Your task to perform on an android device: open app "Lyft - Rideshare, Bikes, Scooters & Transit" (install if not already installed) Image 0: 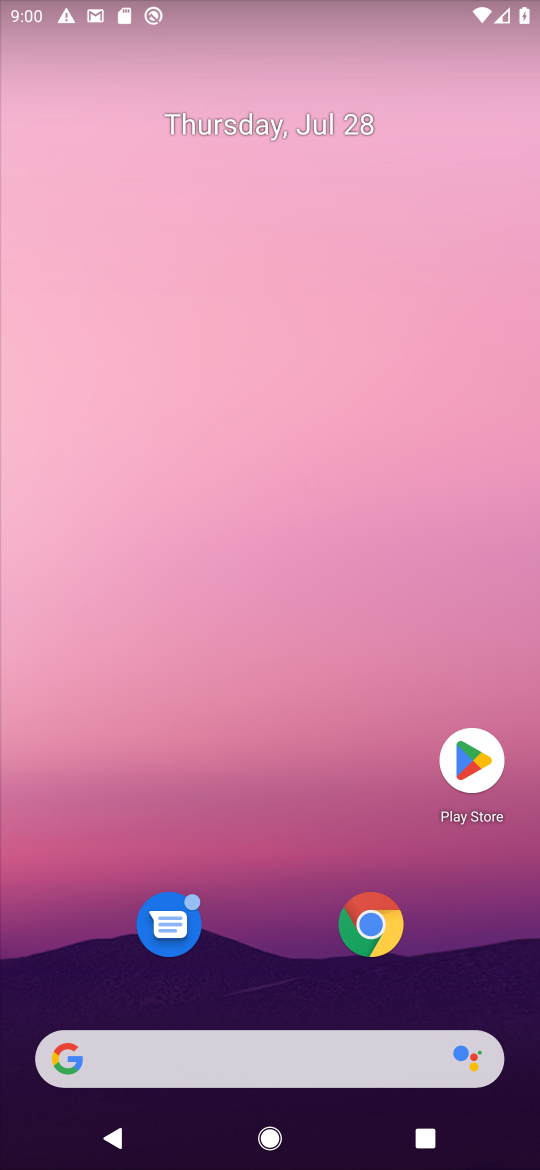
Step 0: press home button
Your task to perform on an android device: open app "Lyft - Rideshare, Bikes, Scooters & Transit" (install if not already installed) Image 1: 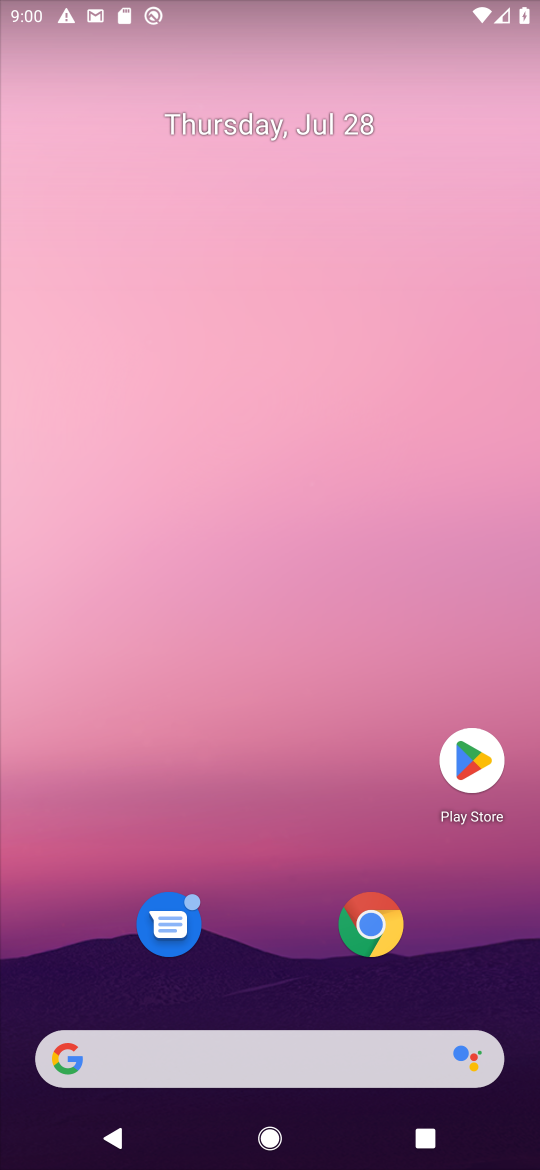
Step 1: click (475, 761)
Your task to perform on an android device: open app "Lyft - Rideshare, Bikes, Scooters & Transit" (install if not already installed) Image 2: 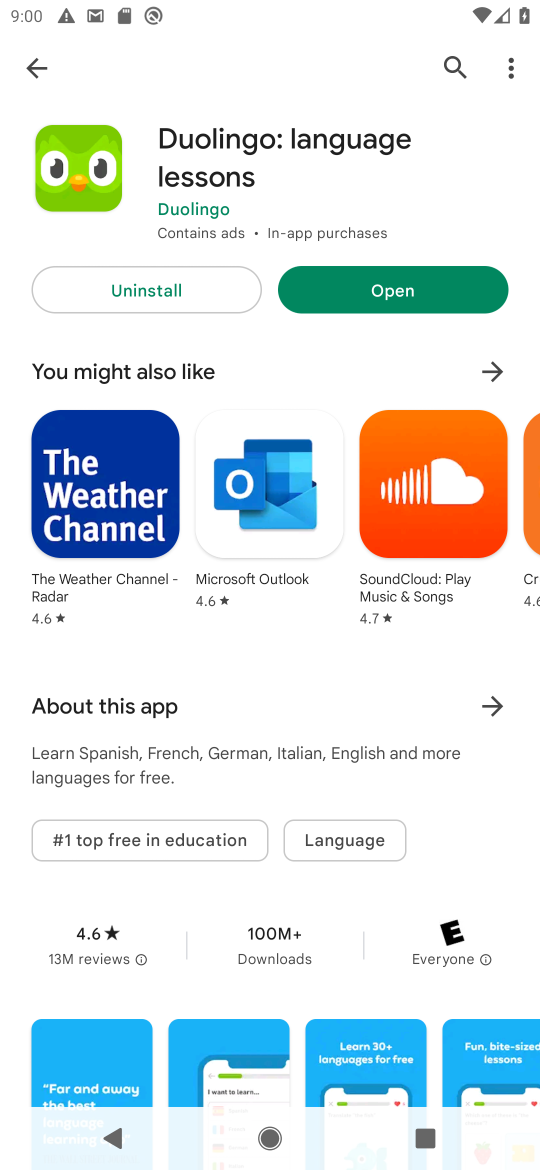
Step 2: click (451, 62)
Your task to perform on an android device: open app "Lyft - Rideshare, Bikes, Scooters & Transit" (install if not already installed) Image 3: 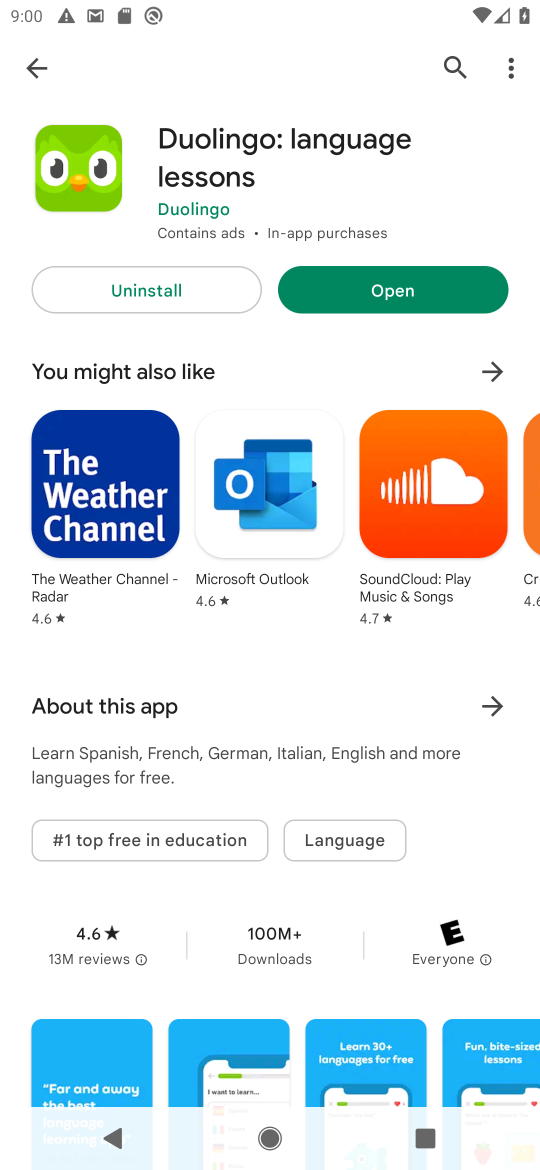
Step 3: click (437, 67)
Your task to perform on an android device: open app "Lyft - Rideshare, Bikes, Scooters & Transit" (install if not already installed) Image 4: 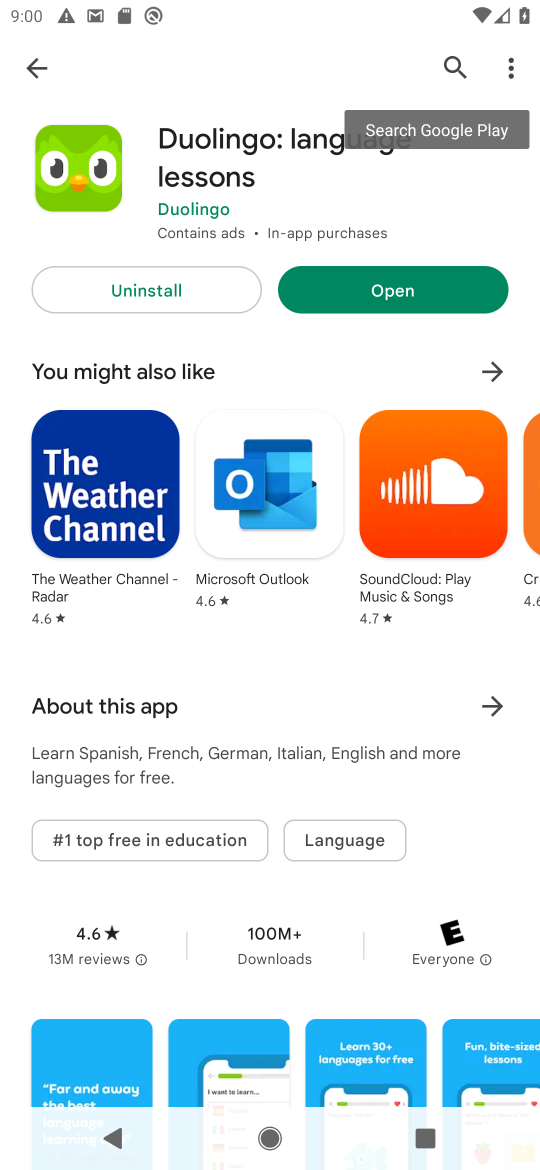
Step 4: click (39, 64)
Your task to perform on an android device: open app "Lyft - Rideshare, Bikes, Scooters & Transit" (install if not already installed) Image 5: 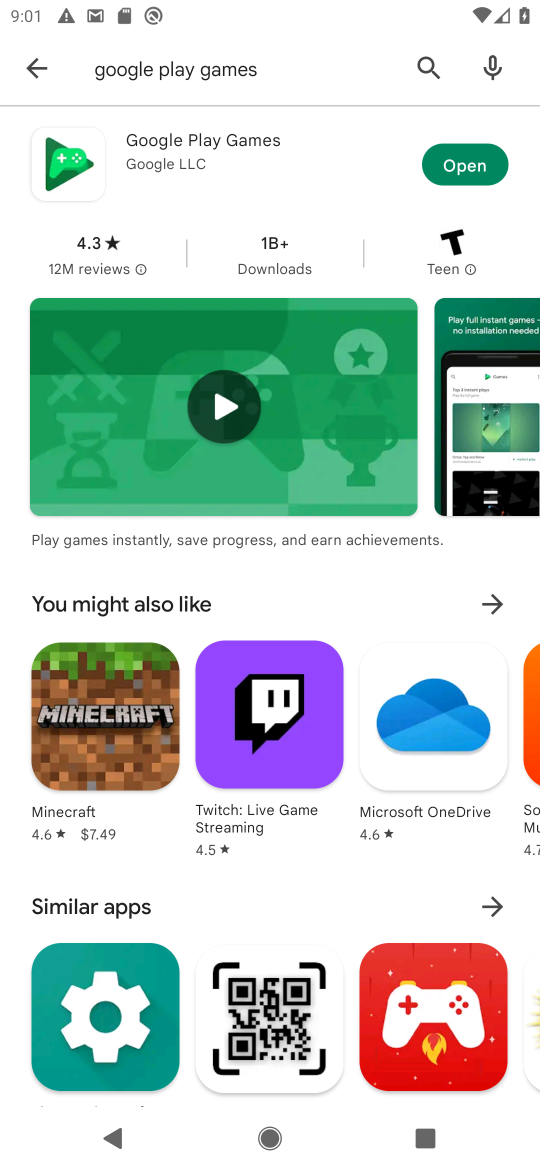
Step 5: click (422, 65)
Your task to perform on an android device: open app "Lyft - Rideshare, Bikes, Scooters & Transit" (install if not already installed) Image 6: 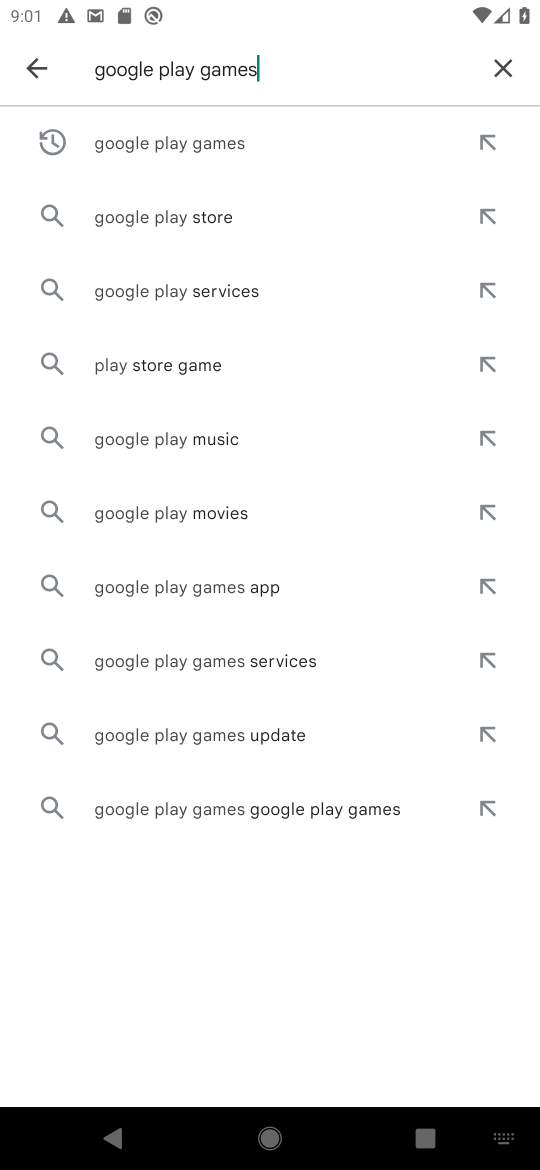
Step 6: click (497, 53)
Your task to perform on an android device: open app "Lyft - Rideshare, Bikes, Scooters & Transit" (install if not already installed) Image 7: 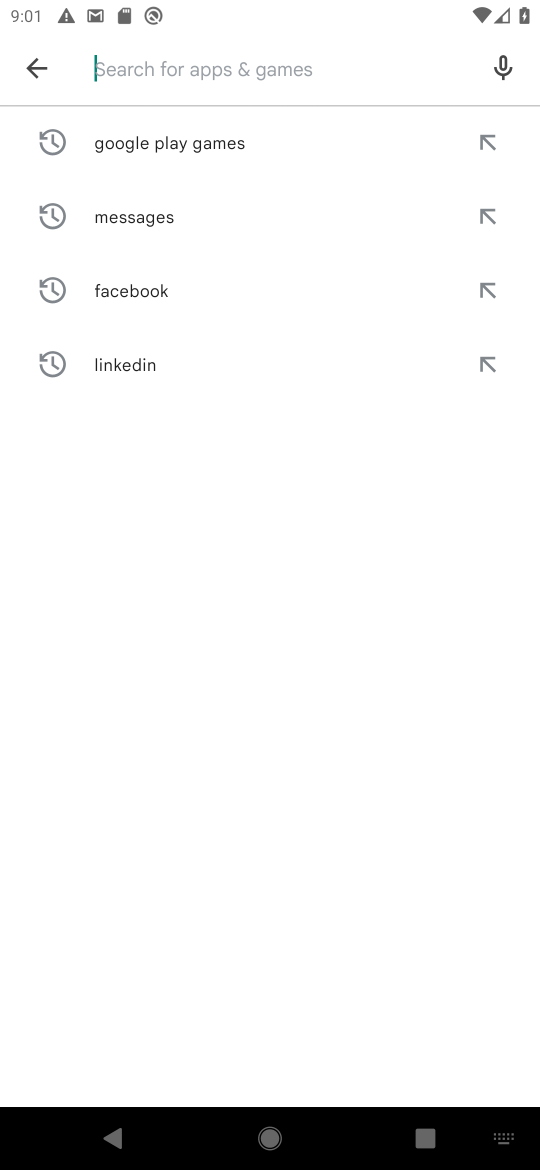
Step 7: type "Lyft - Rideshare, Bikes, Scooters & Transit"
Your task to perform on an android device: open app "Lyft - Rideshare, Bikes, Scooters & Transit" (install if not already installed) Image 8: 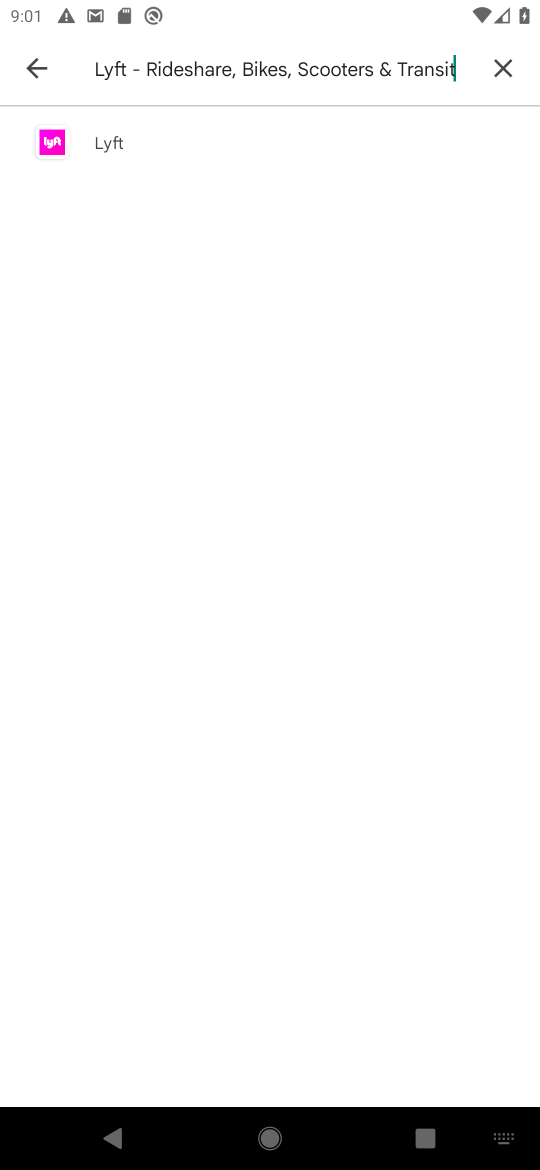
Step 8: click (104, 141)
Your task to perform on an android device: open app "Lyft - Rideshare, Bikes, Scooters & Transit" (install if not already installed) Image 9: 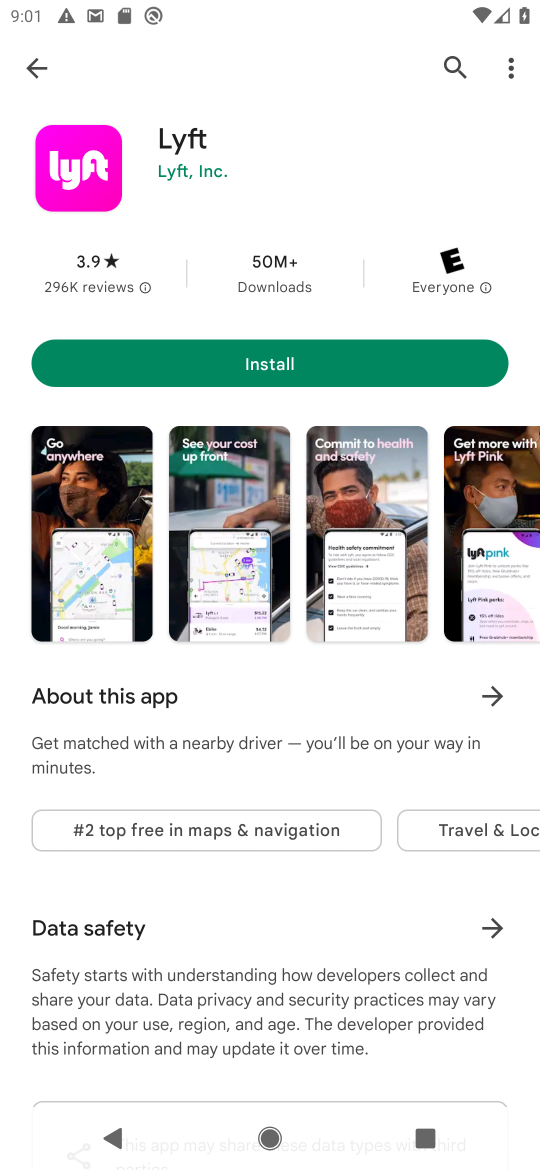
Step 9: click (283, 354)
Your task to perform on an android device: open app "Lyft - Rideshare, Bikes, Scooters & Transit" (install if not already installed) Image 10: 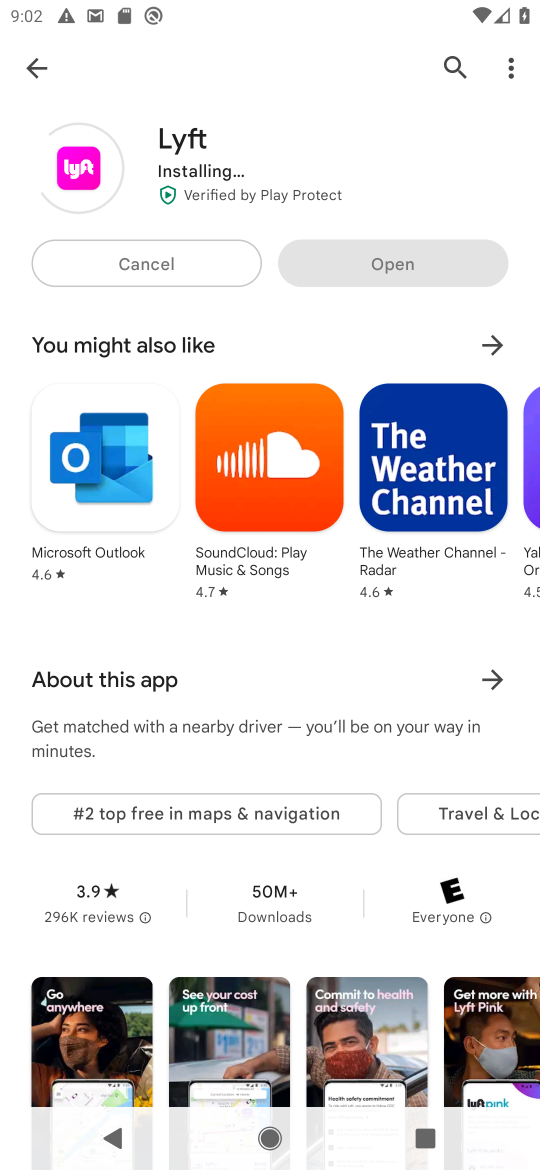
Step 10: click (442, 270)
Your task to perform on an android device: open app "Lyft - Rideshare, Bikes, Scooters & Transit" (install if not already installed) Image 11: 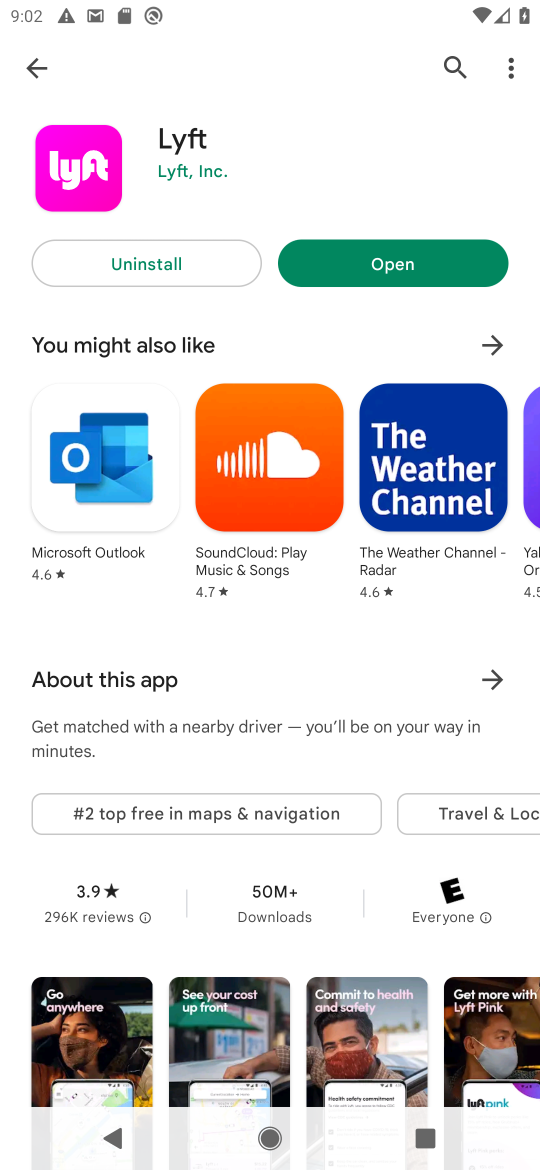
Step 11: click (363, 258)
Your task to perform on an android device: open app "Lyft - Rideshare, Bikes, Scooters & Transit" (install if not already installed) Image 12: 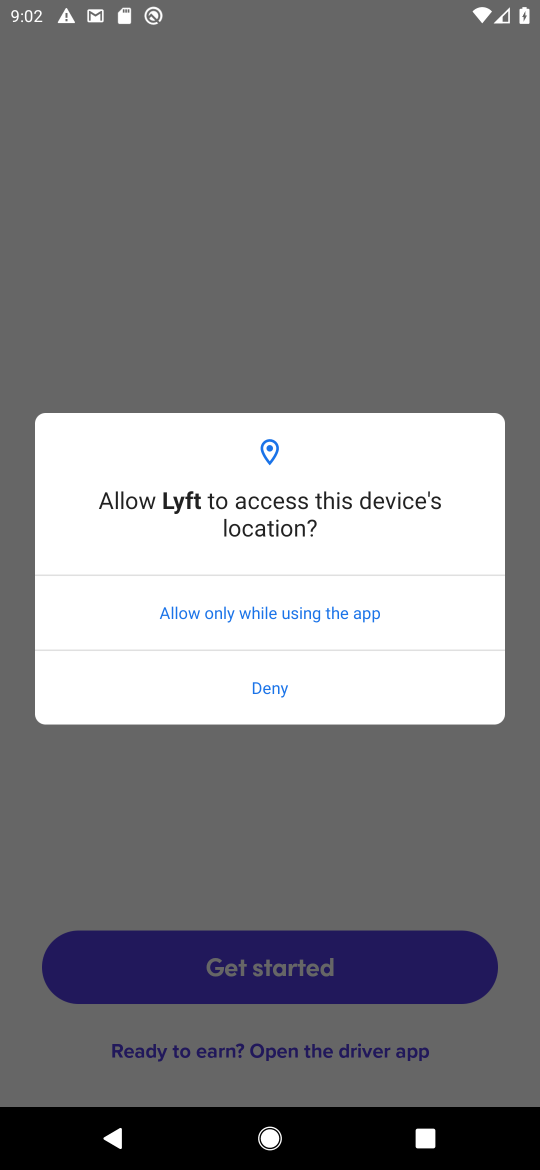
Step 12: task complete